Your task to perform on an android device: Check the news Image 0: 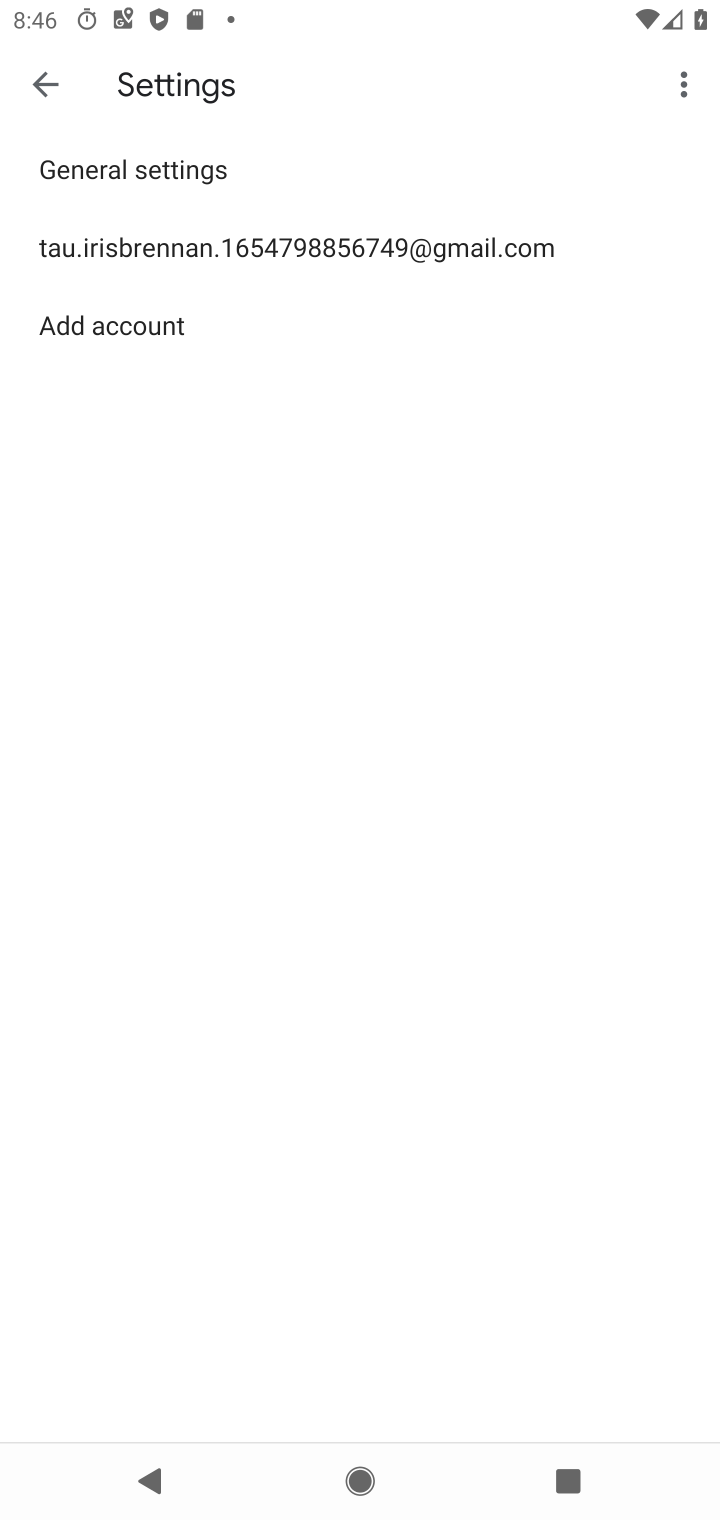
Step 0: press home button
Your task to perform on an android device: Check the news Image 1: 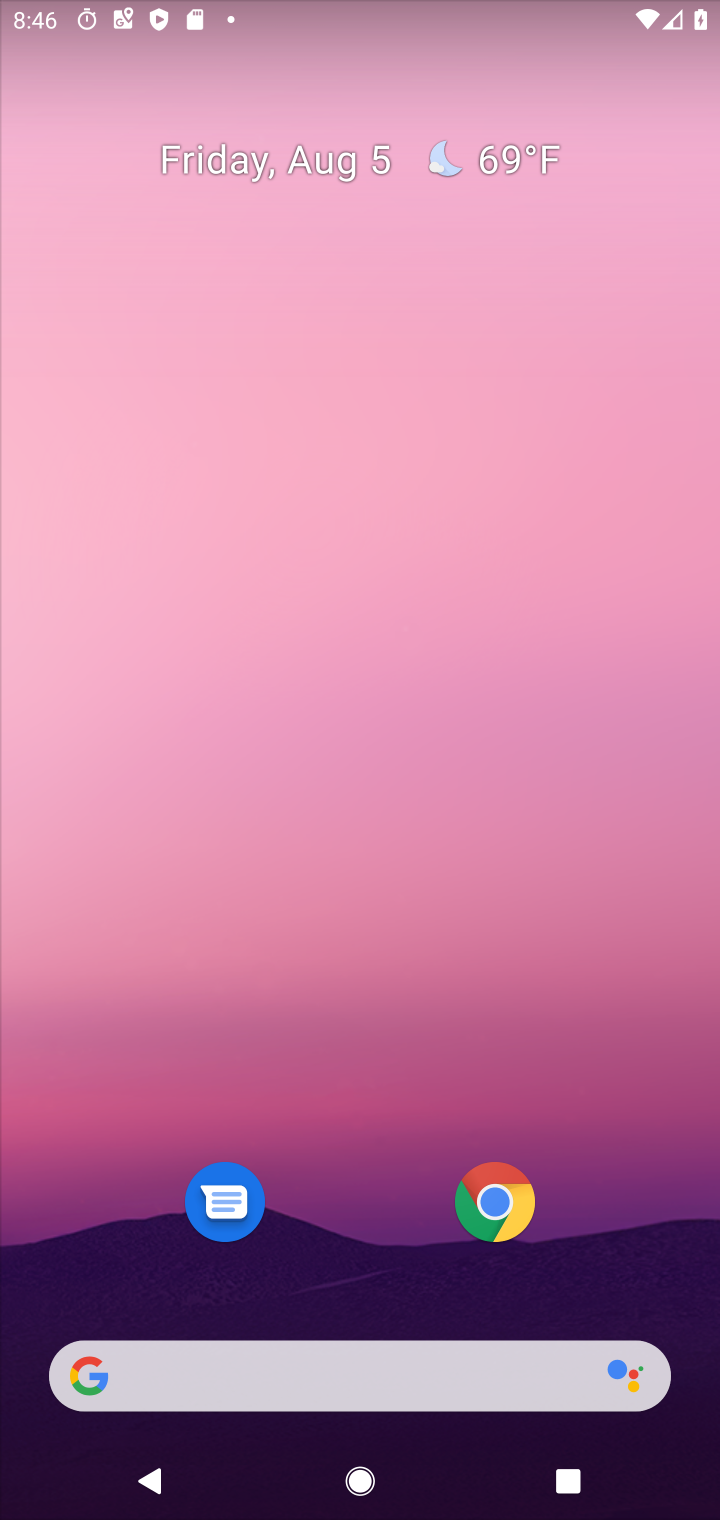
Step 1: click (270, 1363)
Your task to perform on an android device: Check the news Image 2: 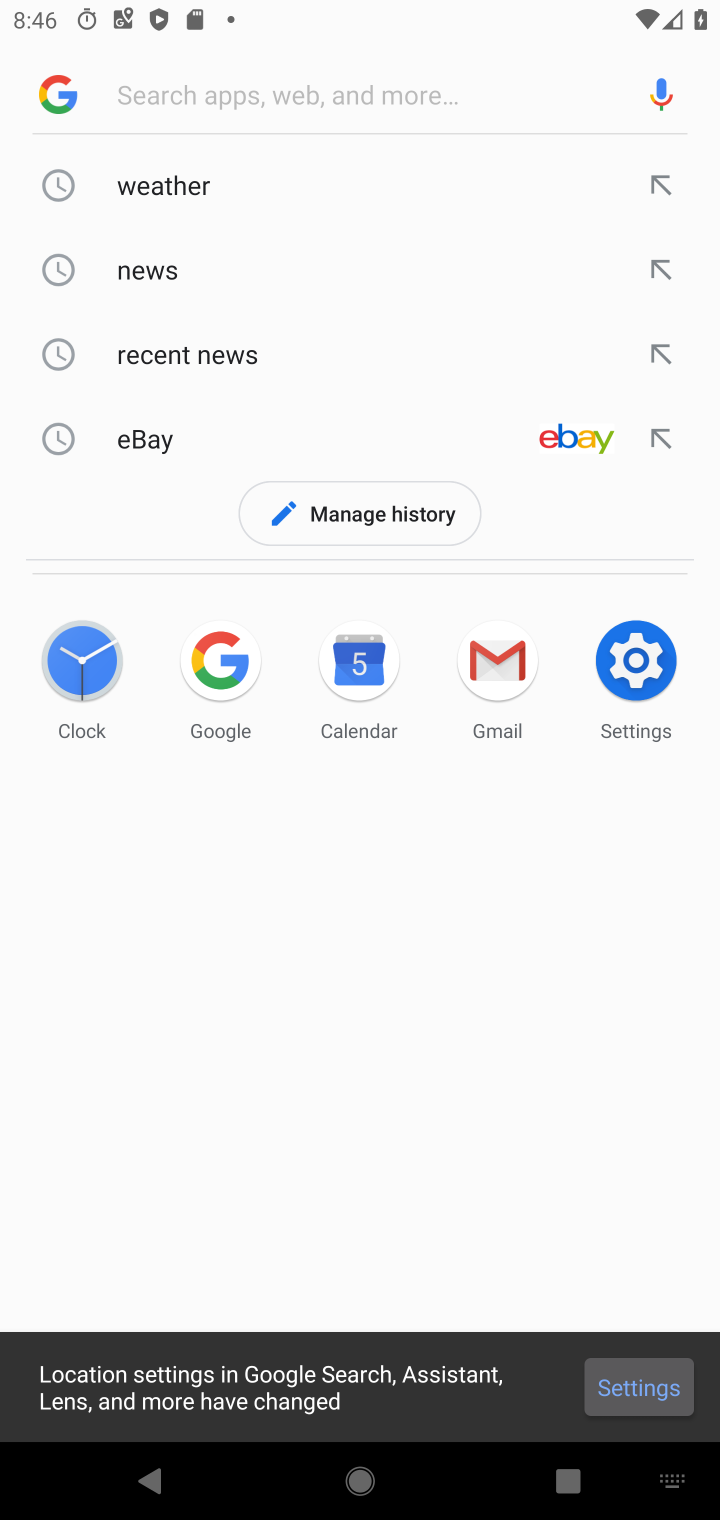
Step 2: type "news"
Your task to perform on an android device: Check the news Image 3: 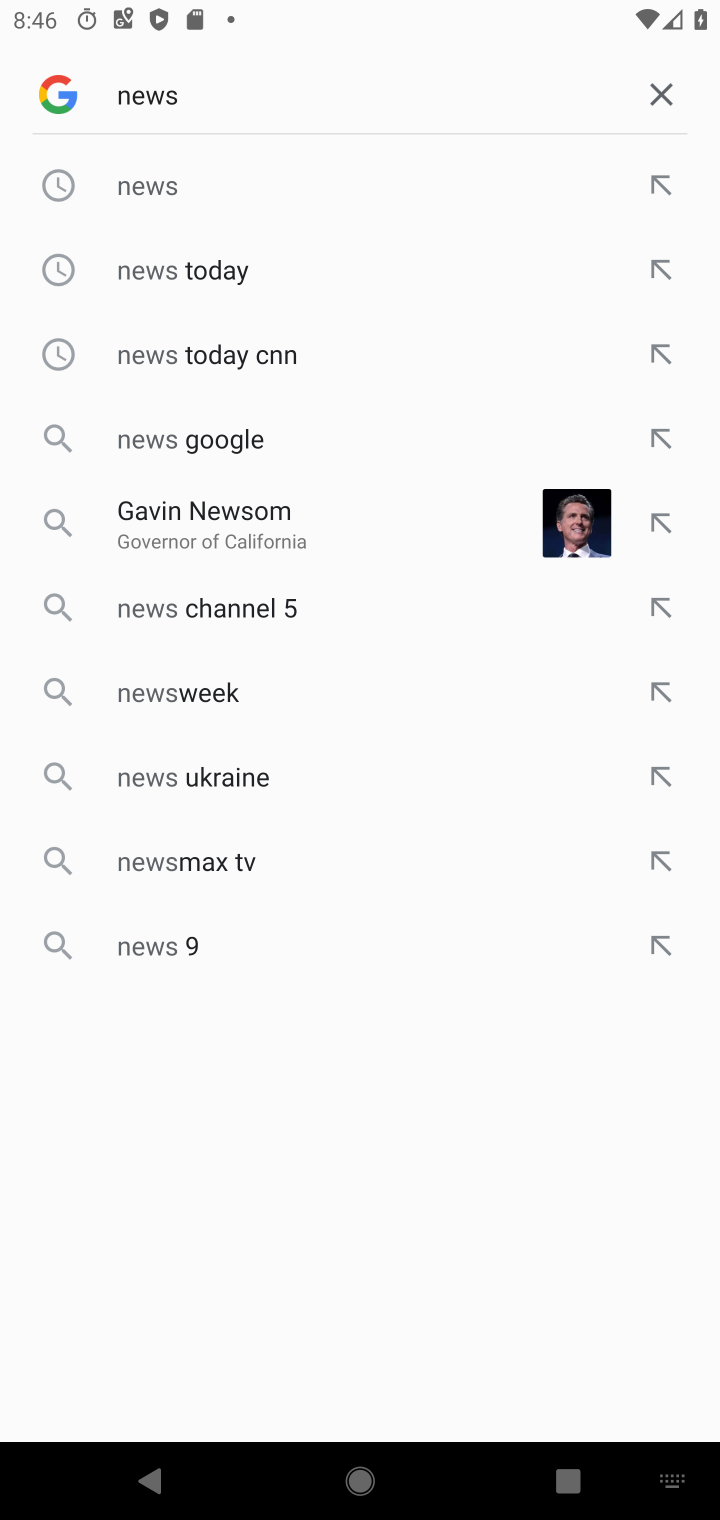
Step 3: click (211, 182)
Your task to perform on an android device: Check the news Image 4: 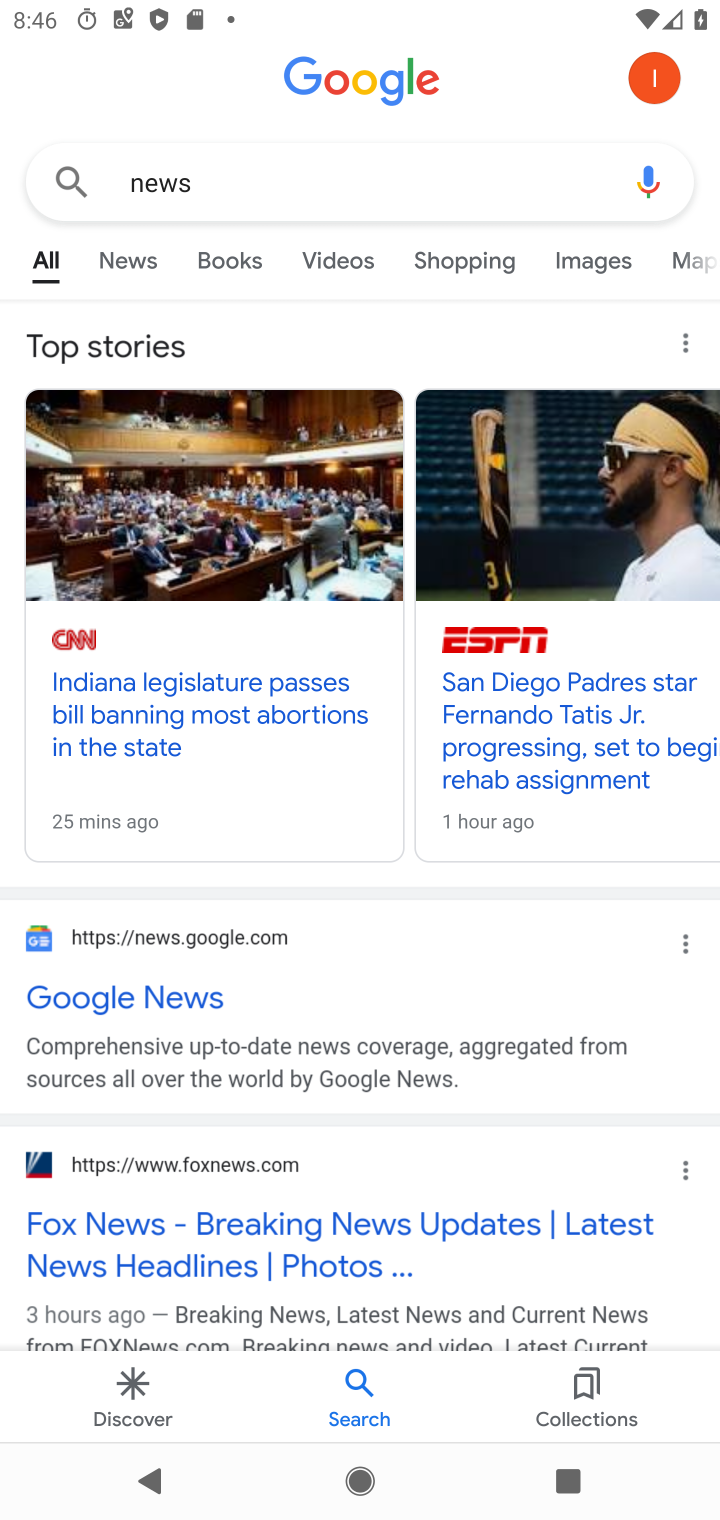
Step 4: click (136, 262)
Your task to perform on an android device: Check the news Image 5: 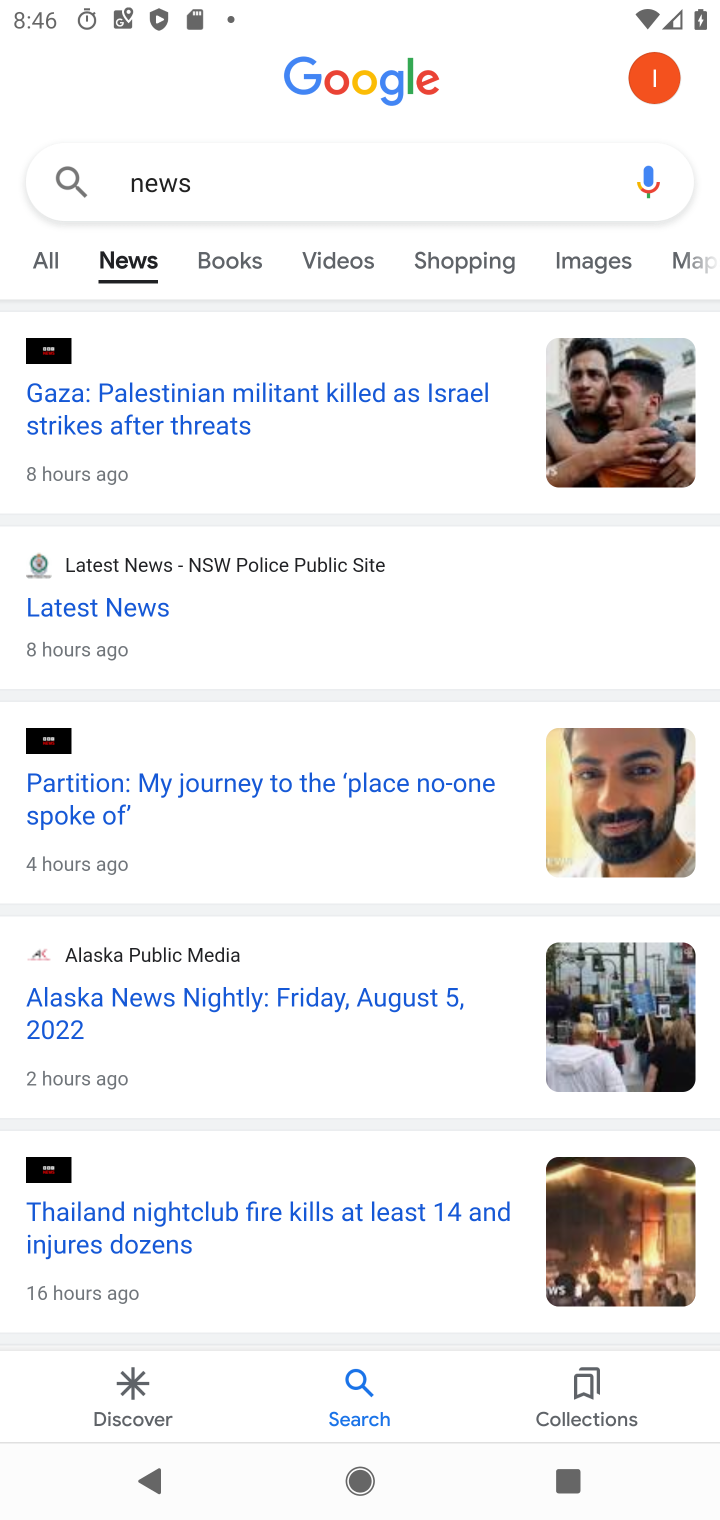
Step 5: task complete